Your task to perform on an android device: Find coffee shops on Maps Image 0: 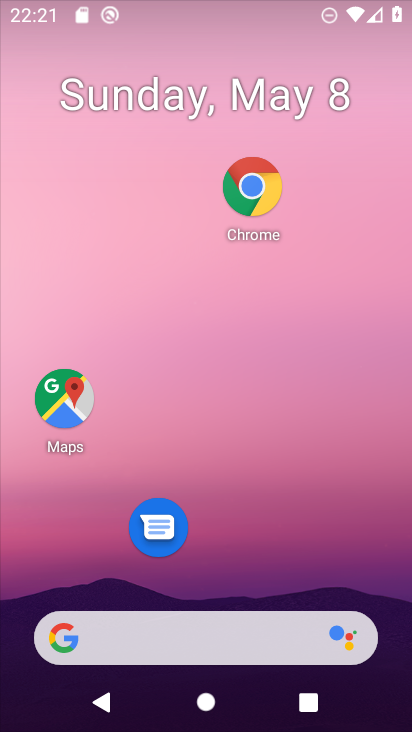
Step 0: drag from (341, 371) to (346, 200)
Your task to perform on an android device: Find coffee shops on Maps Image 1: 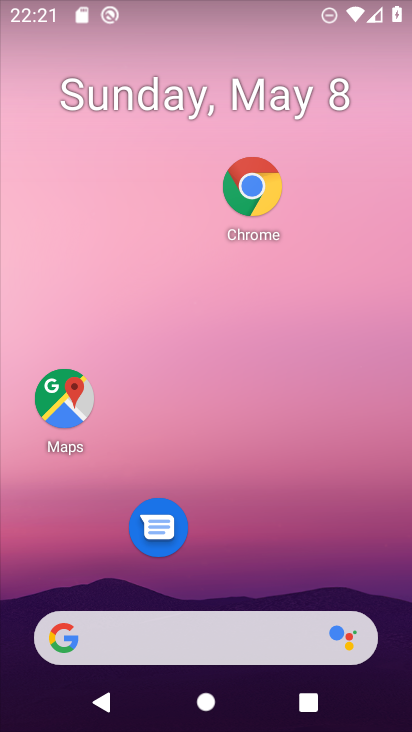
Step 1: drag from (280, 573) to (322, 272)
Your task to perform on an android device: Find coffee shops on Maps Image 2: 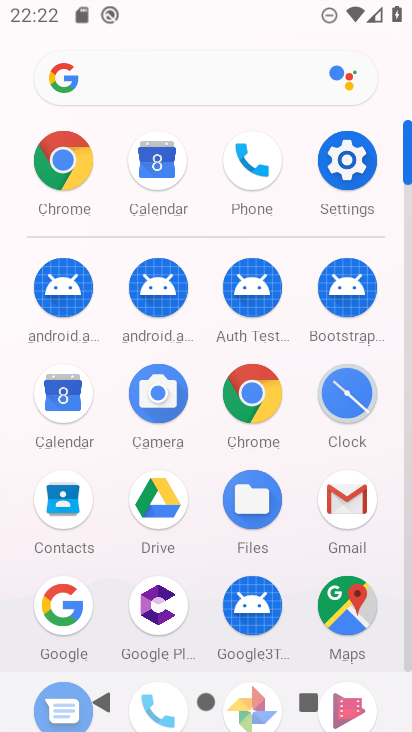
Step 2: click (339, 597)
Your task to perform on an android device: Find coffee shops on Maps Image 3: 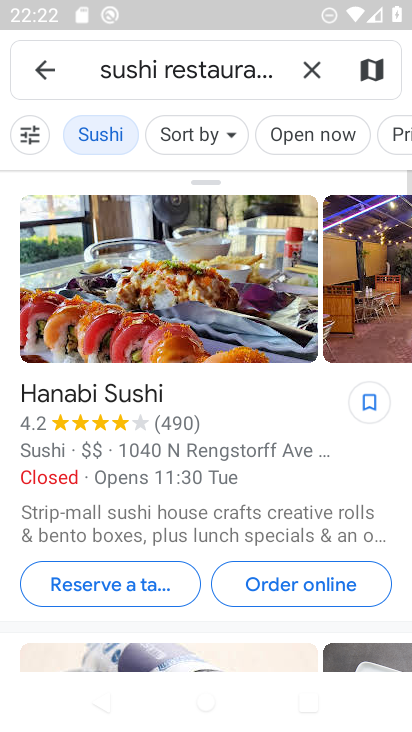
Step 3: click (311, 67)
Your task to perform on an android device: Find coffee shops on Maps Image 4: 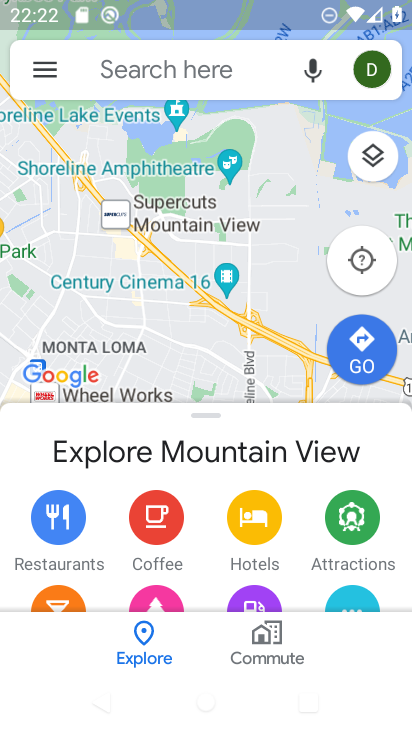
Step 4: click (189, 74)
Your task to perform on an android device: Find coffee shops on Maps Image 5: 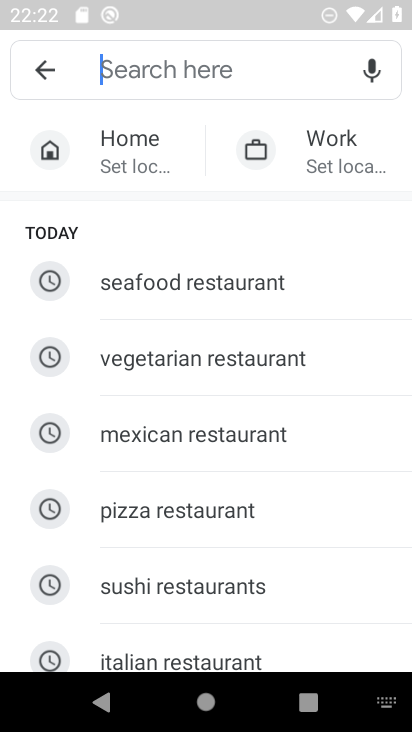
Step 5: type "coffee shops"
Your task to perform on an android device: Find coffee shops on Maps Image 6: 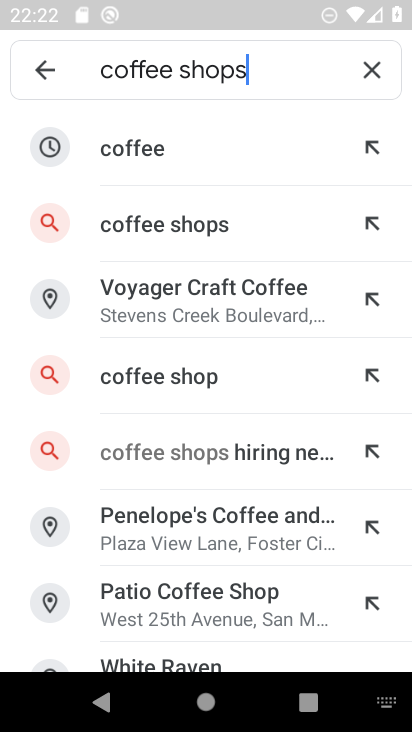
Step 6: click (233, 213)
Your task to perform on an android device: Find coffee shops on Maps Image 7: 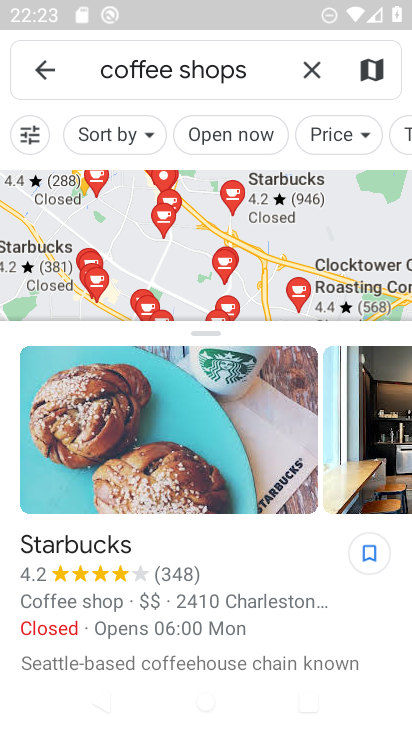
Step 7: task complete